Your task to perform on an android device: check storage Image 0: 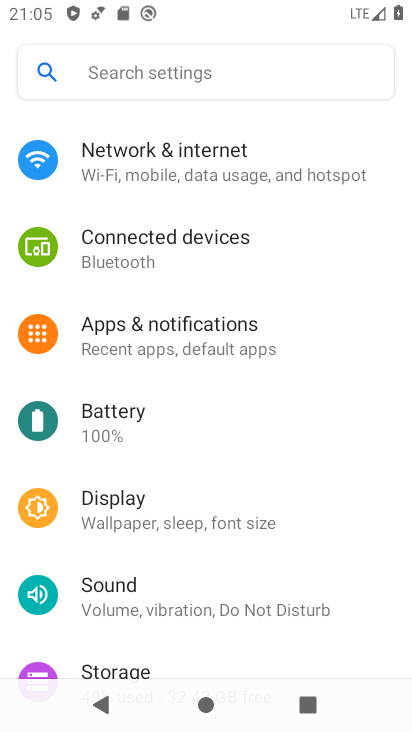
Step 0: click (136, 541)
Your task to perform on an android device: check storage Image 1: 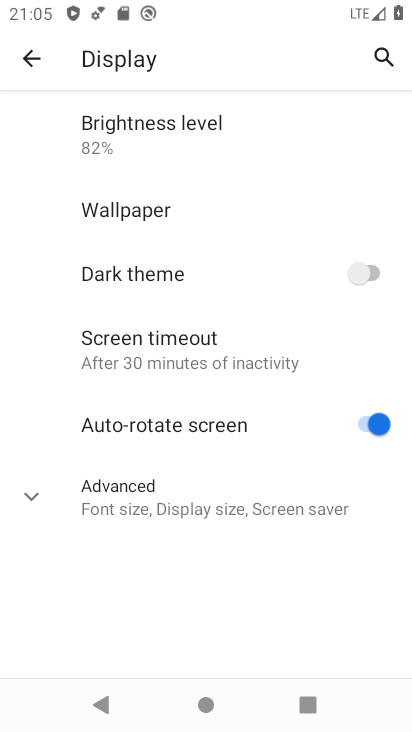
Step 1: press back button
Your task to perform on an android device: check storage Image 2: 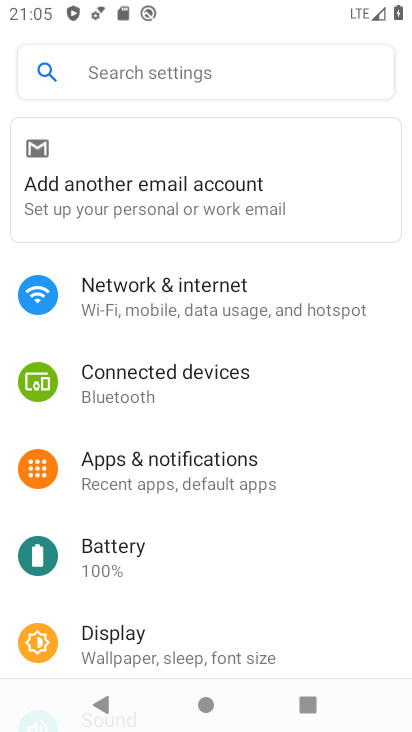
Step 2: drag from (195, 619) to (192, 356)
Your task to perform on an android device: check storage Image 3: 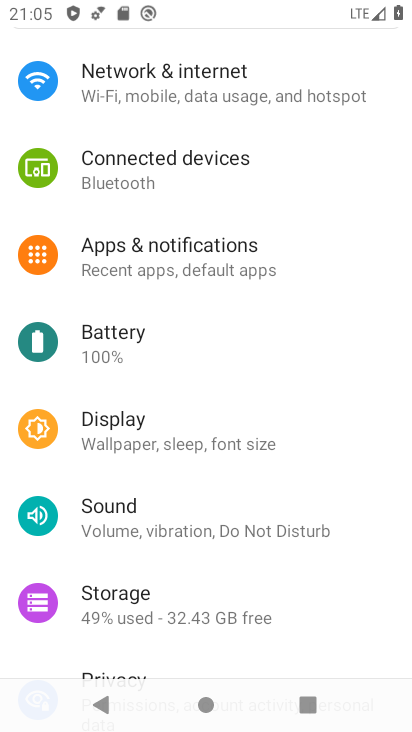
Step 3: click (113, 590)
Your task to perform on an android device: check storage Image 4: 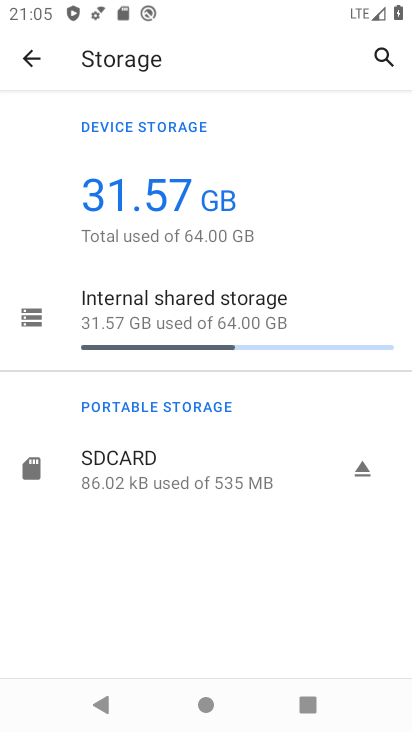
Step 4: task complete